Your task to perform on an android device: Search for Italian restaurants on Maps Image 0: 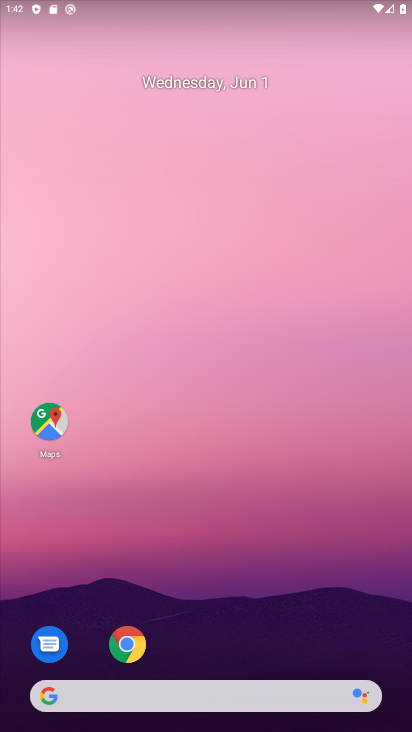
Step 0: click (44, 422)
Your task to perform on an android device: Search for Italian restaurants on Maps Image 1: 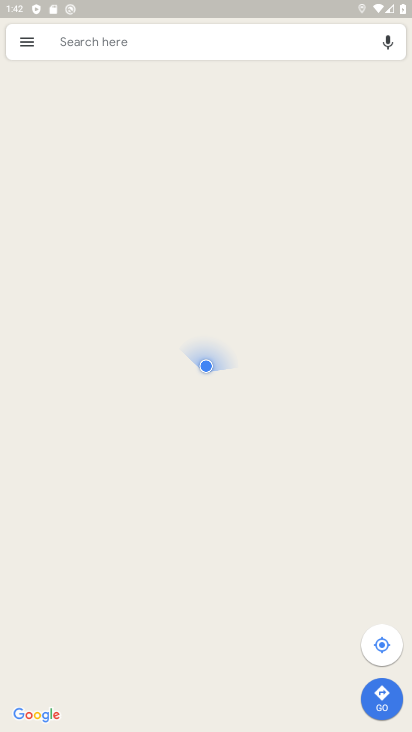
Step 1: click (126, 47)
Your task to perform on an android device: Search for Italian restaurants on Maps Image 2: 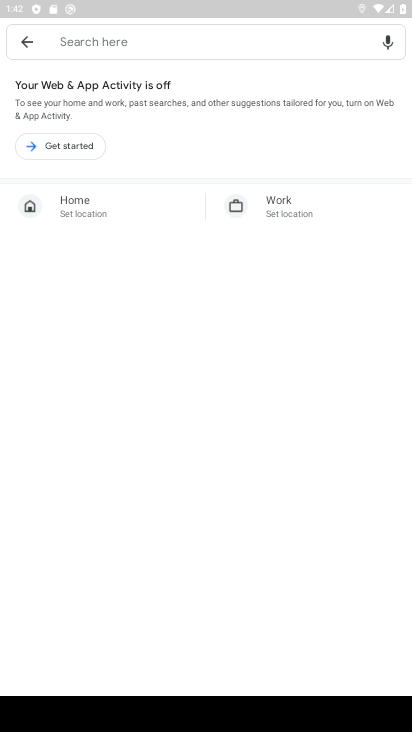
Step 2: type "Italian restaurants"
Your task to perform on an android device: Search for Italian restaurants on Maps Image 3: 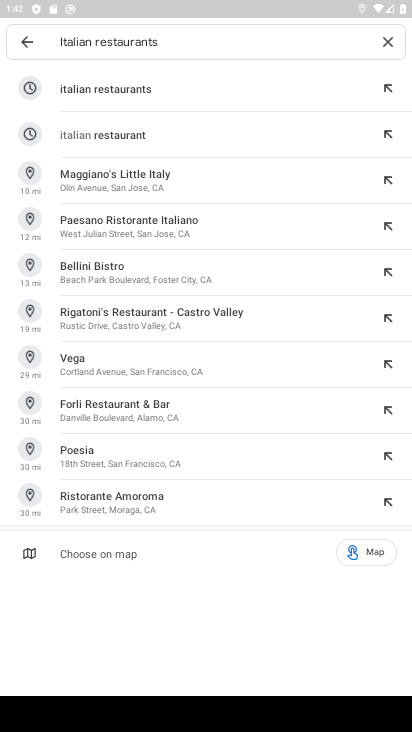
Step 3: click (134, 92)
Your task to perform on an android device: Search for Italian restaurants on Maps Image 4: 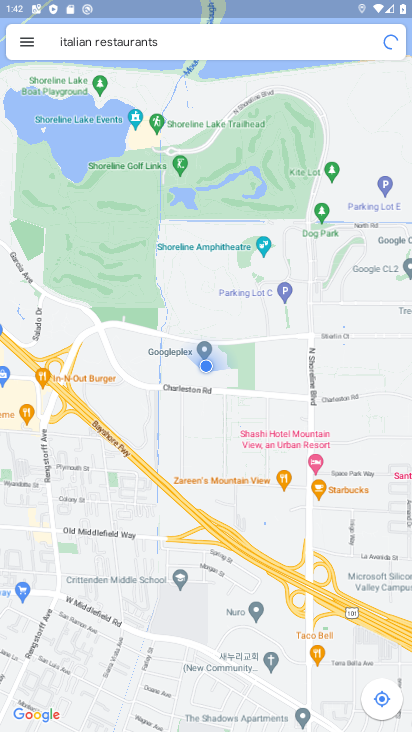
Step 4: task complete